Your task to perform on an android device: Go to Amazon Image 0: 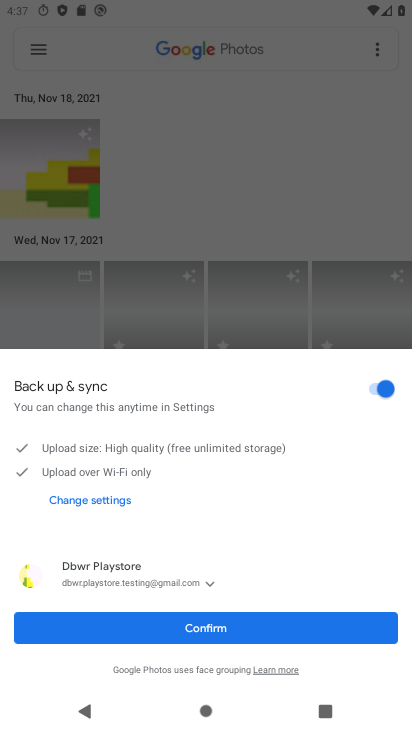
Step 0: press home button
Your task to perform on an android device: Go to Amazon Image 1: 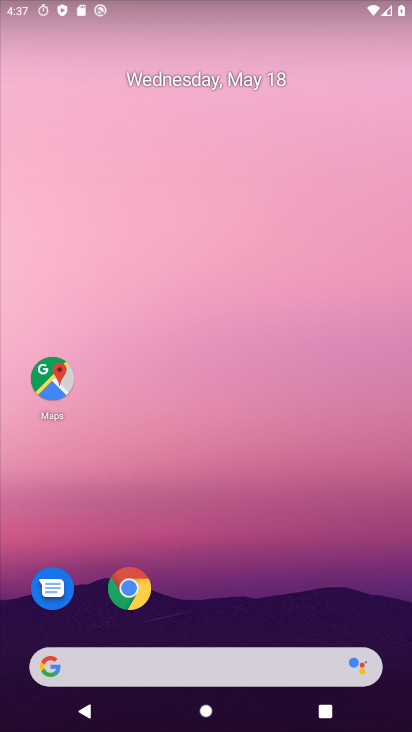
Step 1: click (126, 592)
Your task to perform on an android device: Go to Amazon Image 2: 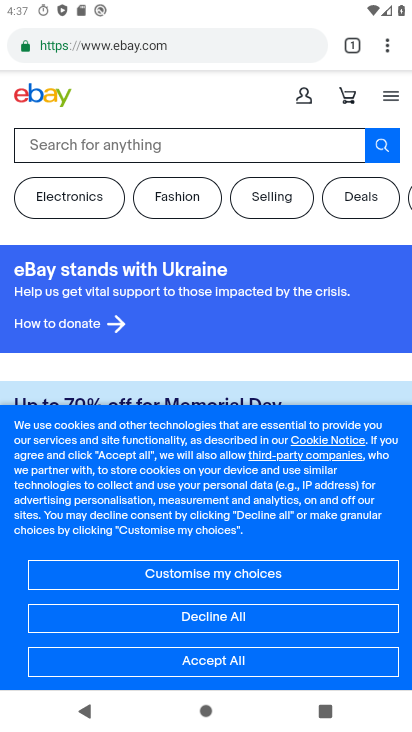
Step 2: drag from (385, 43) to (254, 101)
Your task to perform on an android device: Go to Amazon Image 3: 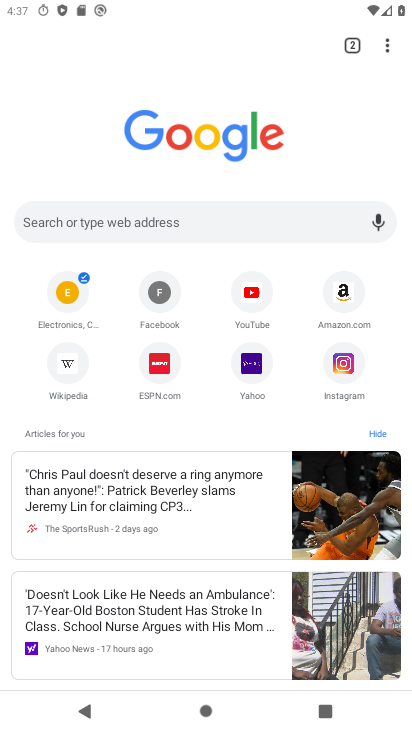
Step 3: click (344, 294)
Your task to perform on an android device: Go to Amazon Image 4: 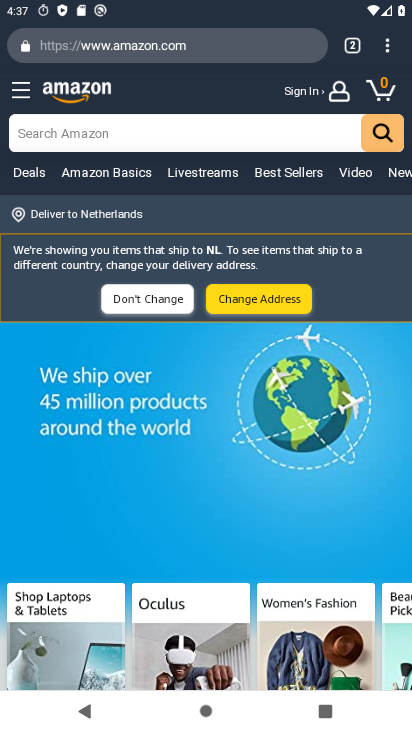
Step 4: task complete